Your task to perform on an android device: What's on my calendar today? Image 0: 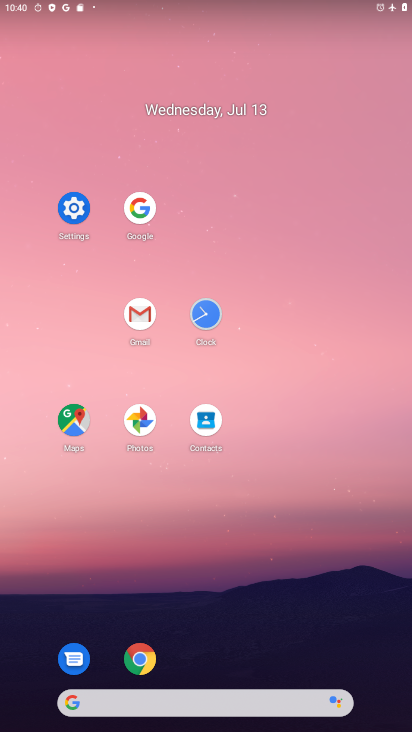
Step 0: drag from (266, 572) to (356, 115)
Your task to perform on an android device: What's on my calendar today? Image 1: 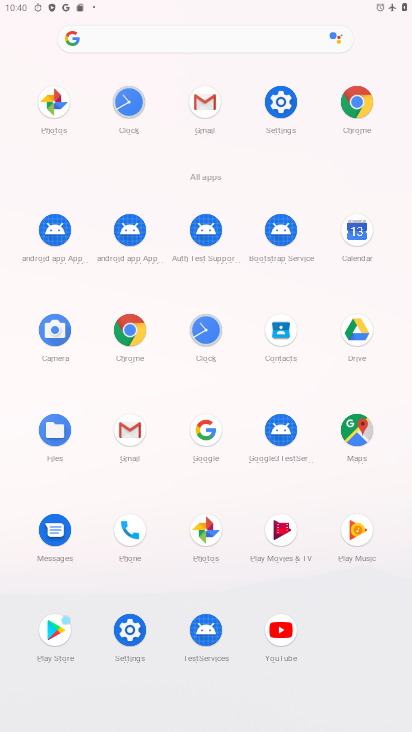
Step 1: drag from (359, 233) to (203, 212)
Your task to perform on an android device: What's on my calendar today? Image 2: 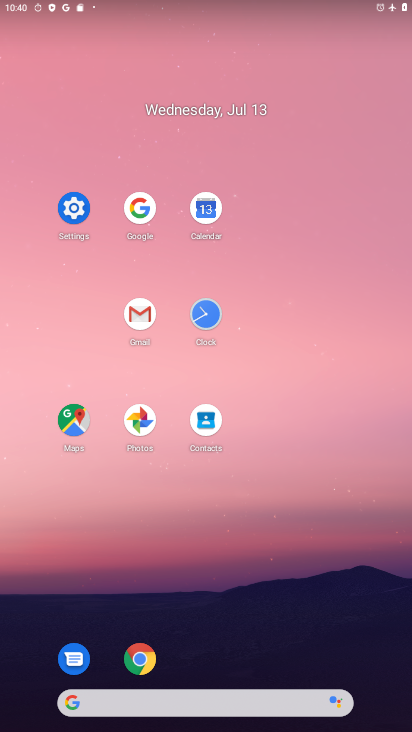
Step 2: click (212, 224)
Your task to perform on an android device: What's on my calendar today? Image 3: 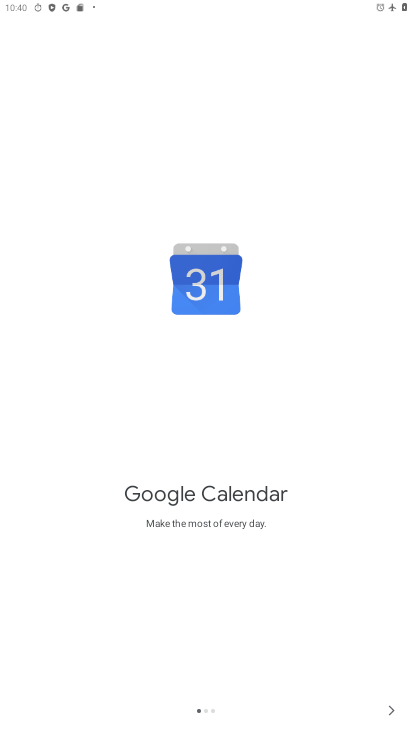
Step 3: click (401, 706)
Your task to perform on an android device: What's on my calendar today? Image 4: 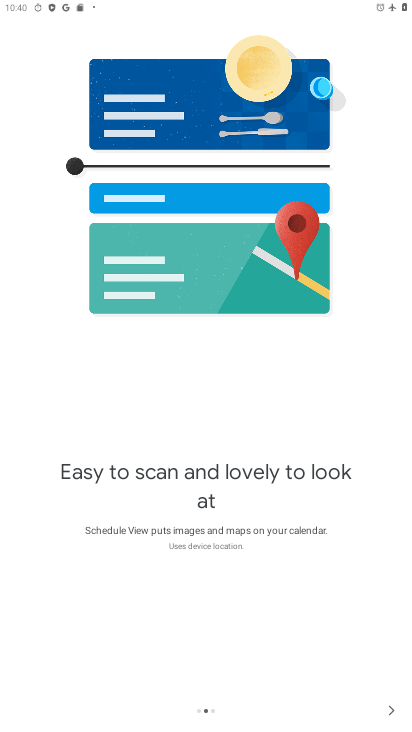
Step 4: click (401, 706)
Your task to perform on an android device: What's on my calendar today? Image 5: 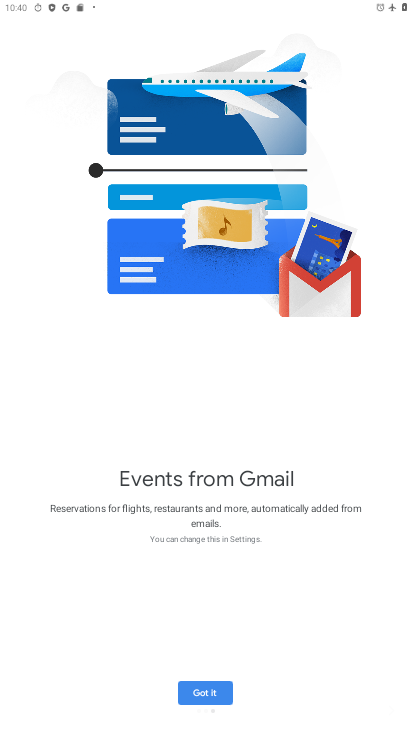
Step 5: click (401, 706)
Your task to perform on an android device: What's on my calendar today? Image 6: 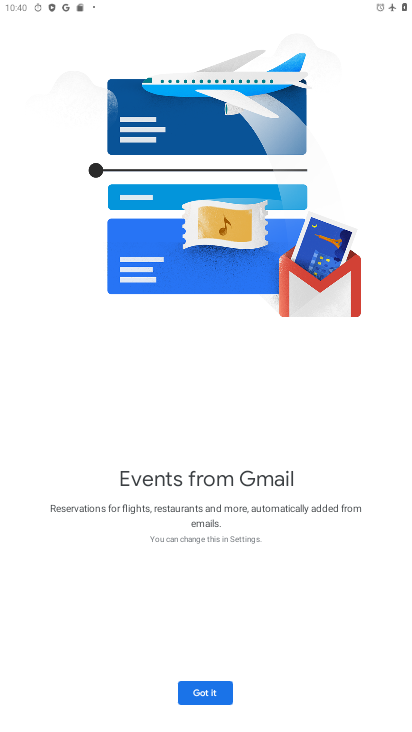
Step 6: click (223, 698)
Your task to perform on an android device: What's on my calendar today? Image 7: 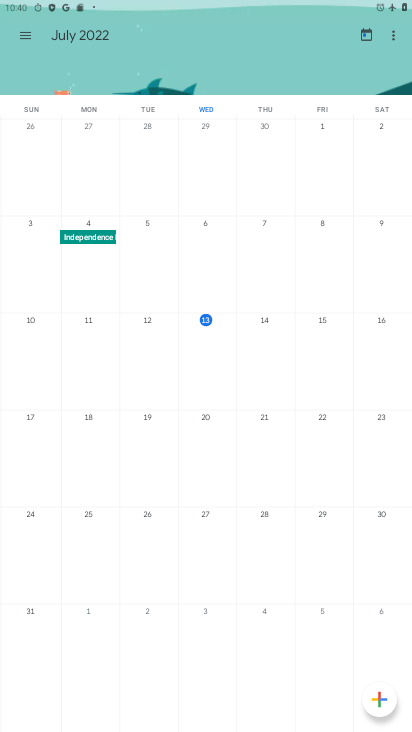
Step 7: click (186, 356)
Your task to perform on an android device: What's on my calendar today? Image 8: 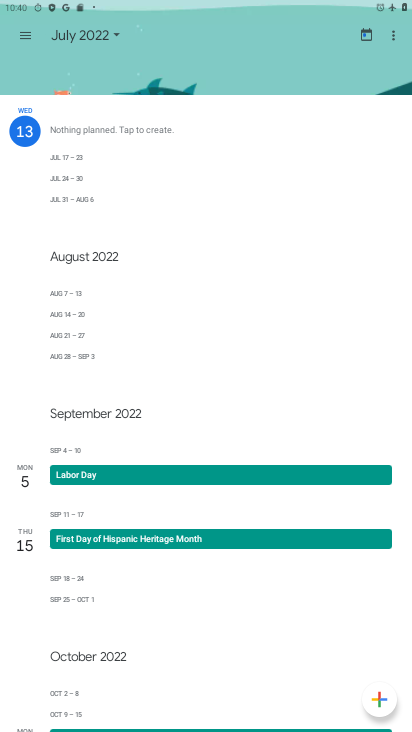
Step 8: task complete